Your task to perform on an android device: turn on showing notifications on the lock screen Image 0: 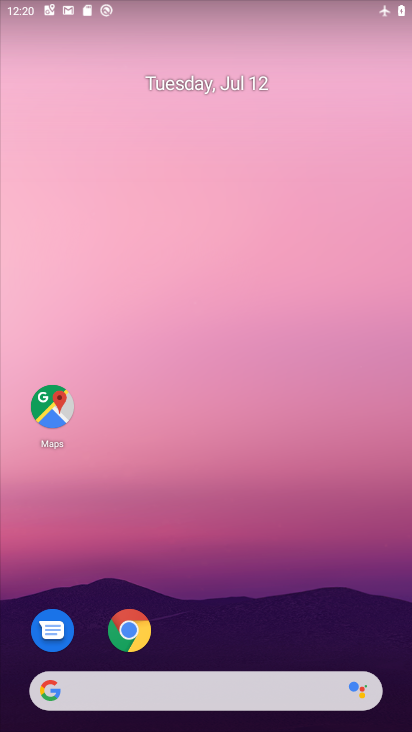
Step 0: drag from (243, 640) to (308, 43)
Your task to perform on an android device: turn on showing notifications on the lock screen Image 1: 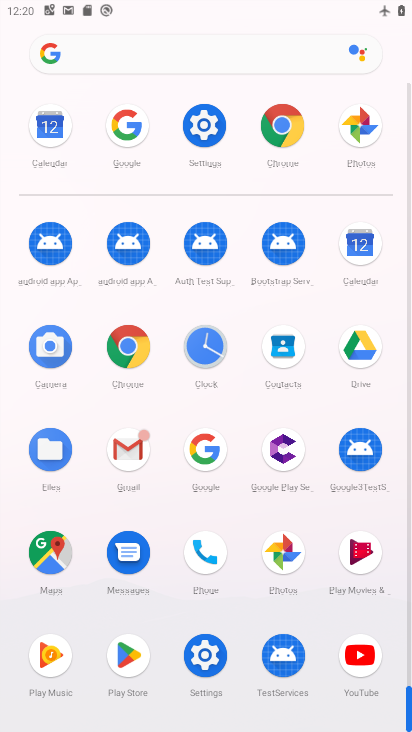
Step 1: click (210, 134)
Your task to perform on an android device: turn on showing notifications on the lock screen Image 2: 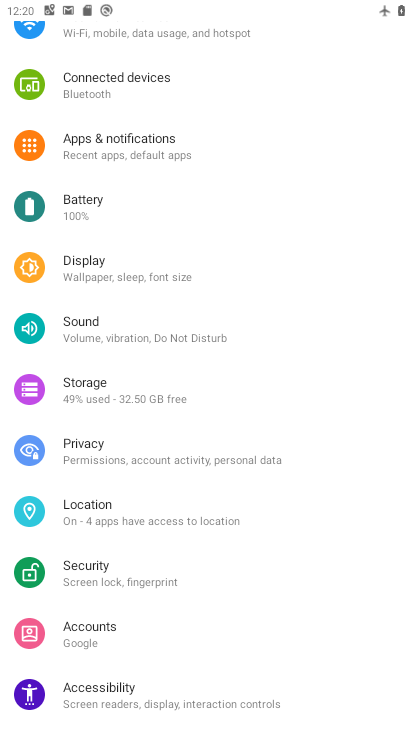
Step 2: click (156, 150)
Your task to perform on an android device: turn on showing notifications on the lock screen Image 3: 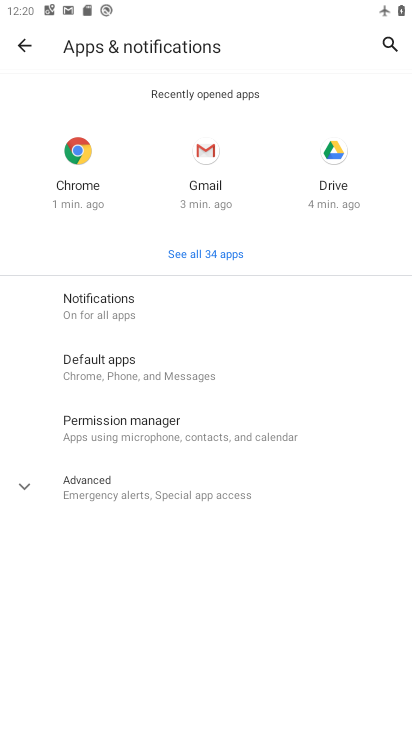
Step 3: click (123, 318)
Your task to perform on an android device: turn on showing notifications on the lock screen Image 4: 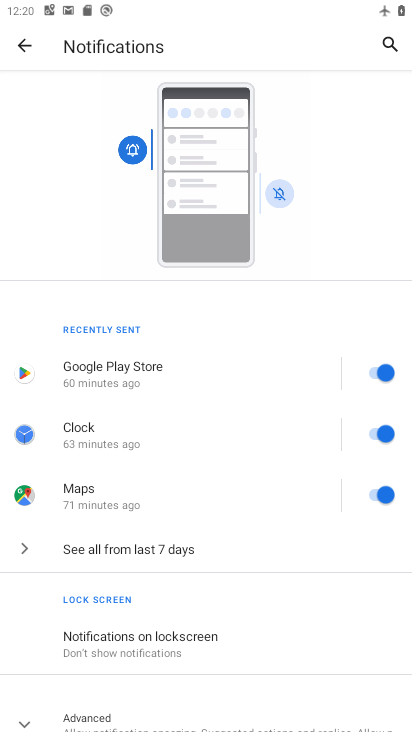
Step 4: drag from (161, 568) to (173, 335)
Your task to perform on an android device: turn on showing notifications on the lock screen Image 5: 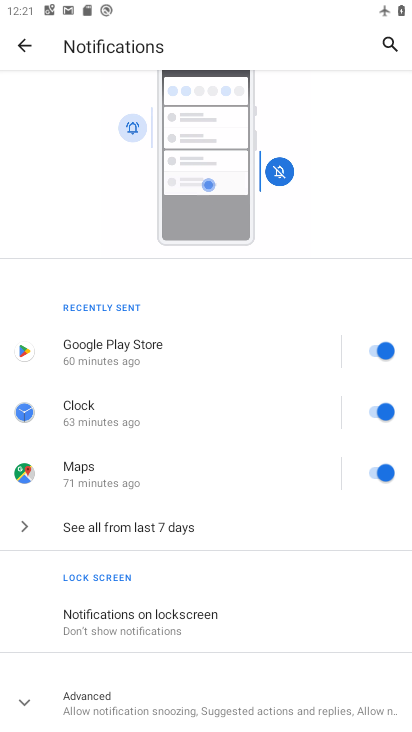
Step 5: drag from (185, 647) to (197, 461)
Your task to perform on an android device: turn on showing notifications on the lock screen Image 6: 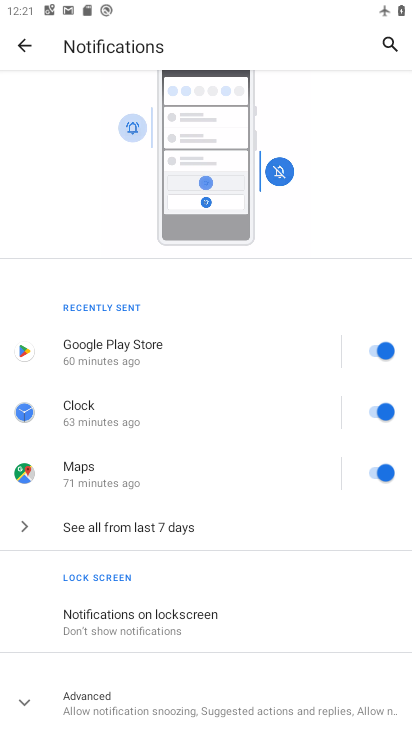
Step 6: click (180, 614)
Your task to perform on an android device: turn on showing notifications on the lock screen Image 7: 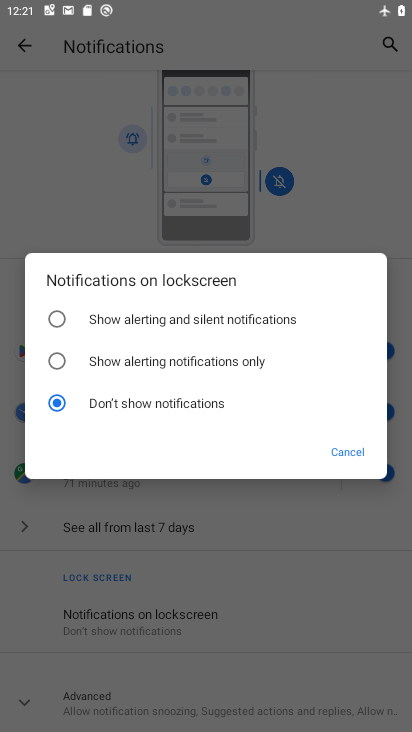
Step 7: click (140, 318)
Your task to perform on an android device: turn on showing notifications on the lock screen Image 8: 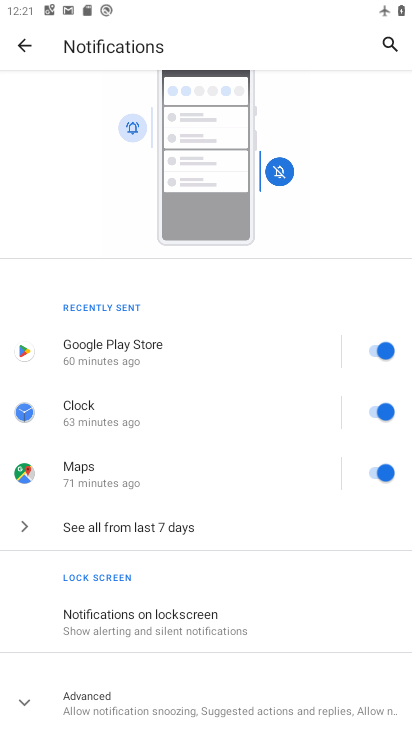
Step 8: task complete